Your task to perform on an android device: Go to battery settings Image 0: 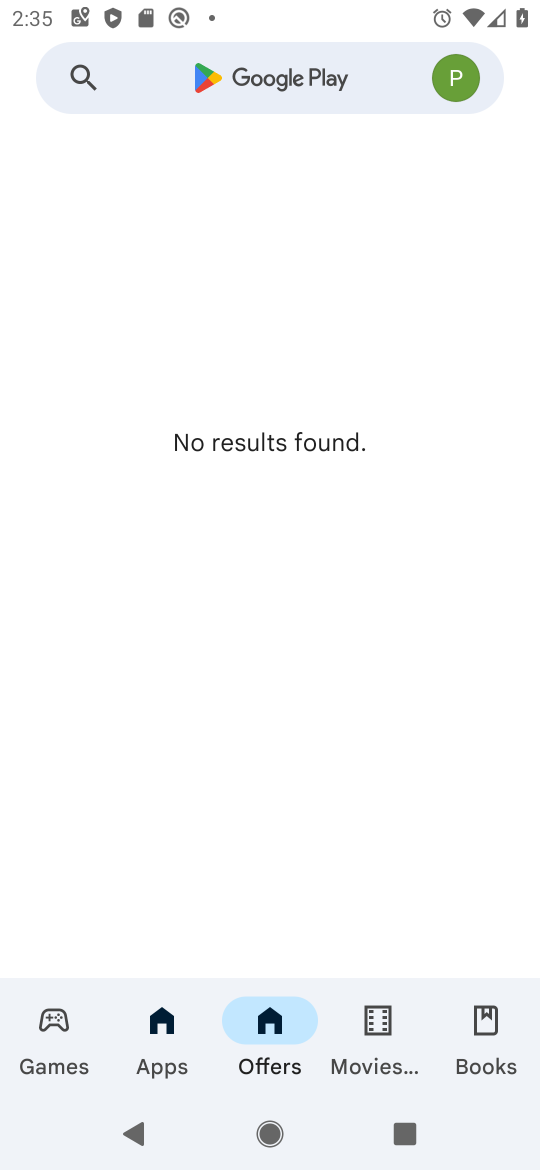
Step 0: press home button
Your task to perform on an android device: Go to battery settings Image 1: 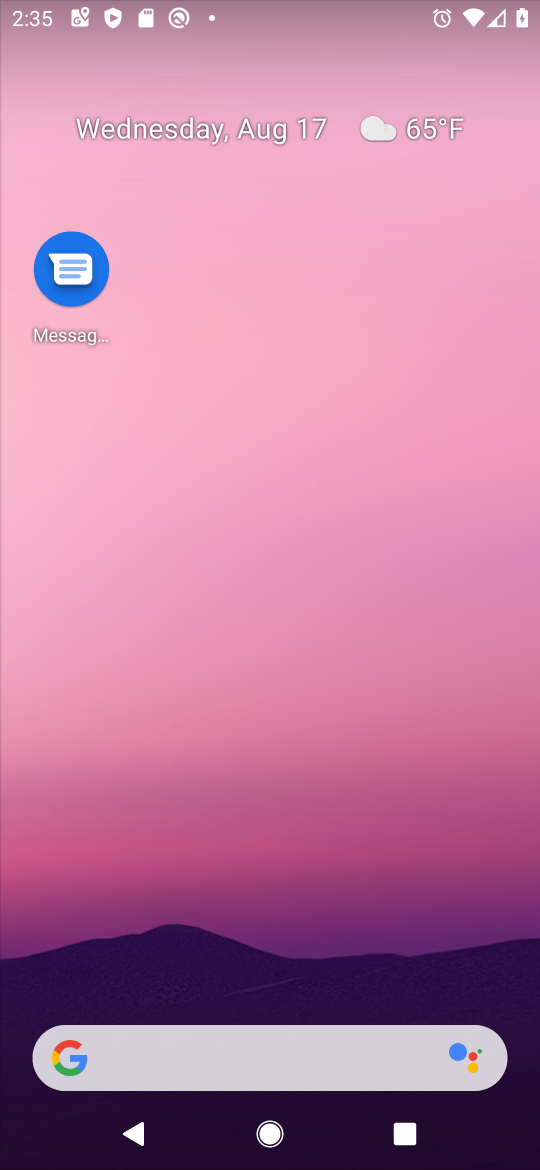
Step 1: drag from (280, 1015) to (259, 187)
Your task to perform on an android device: Go to battery settings Image 2: 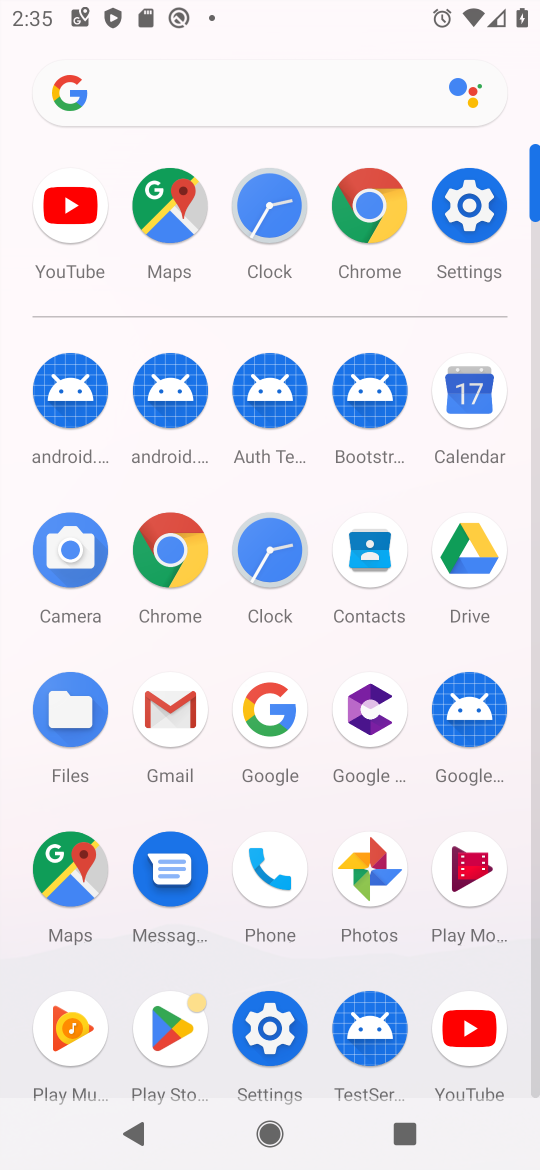
Step 2: click (455, 193)
Your task to perform on an android device: Go to battery settings Image 3: 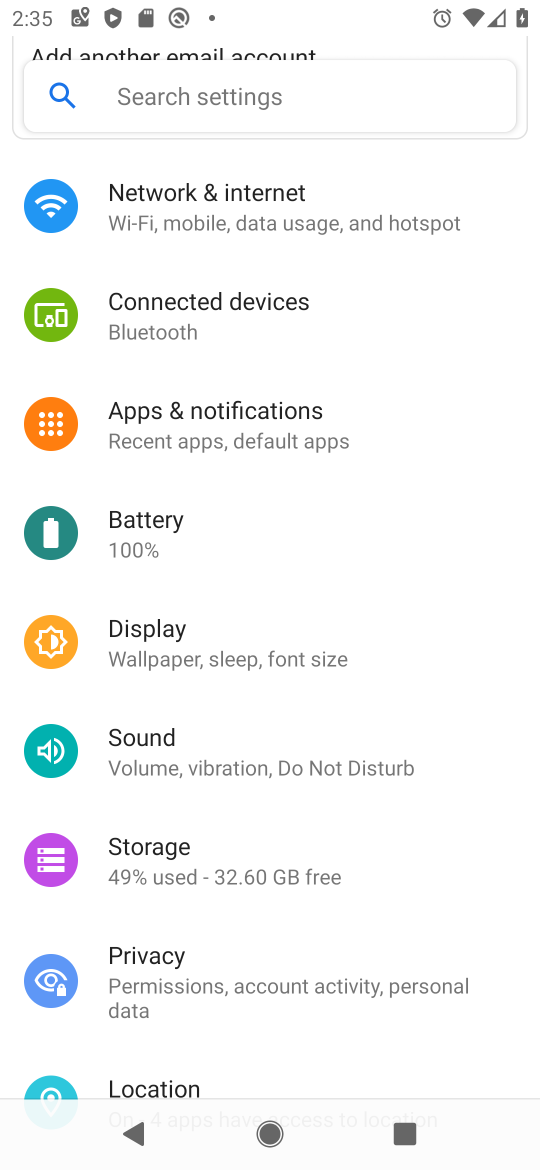
Step 3: click (166, 520)
Your task to perform on an android device: Go to battery settings Image 4: 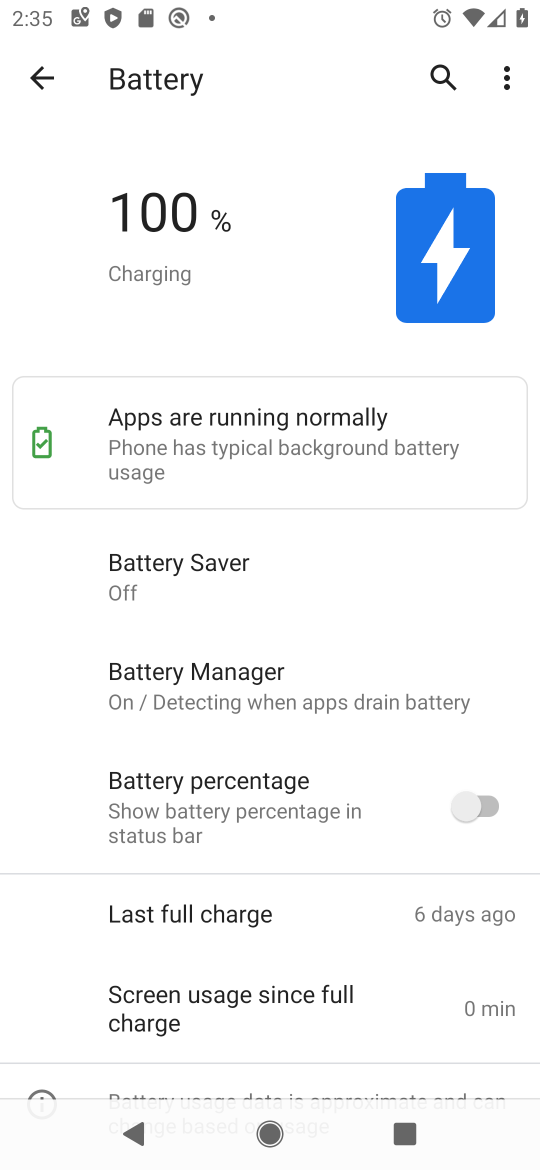
Step 4: task complete